Your task to perform on an android device: uninstall "Fetch Rewards" Image 0: 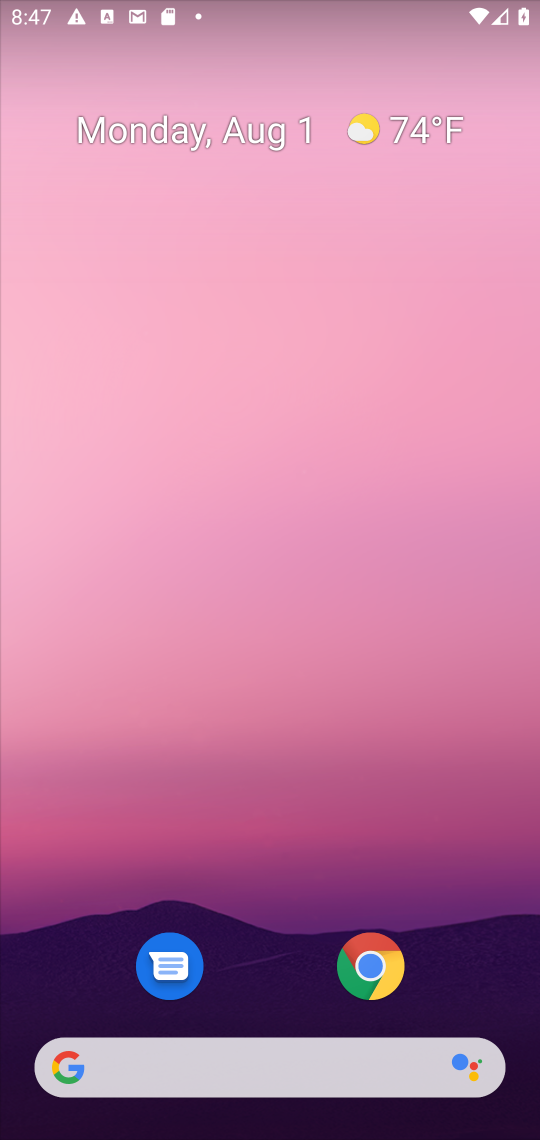
Step 0: drag from (523, 963) to (382, 58)
Your task to perform on an android device: uninstall "Fetch Rewards" Image 1: 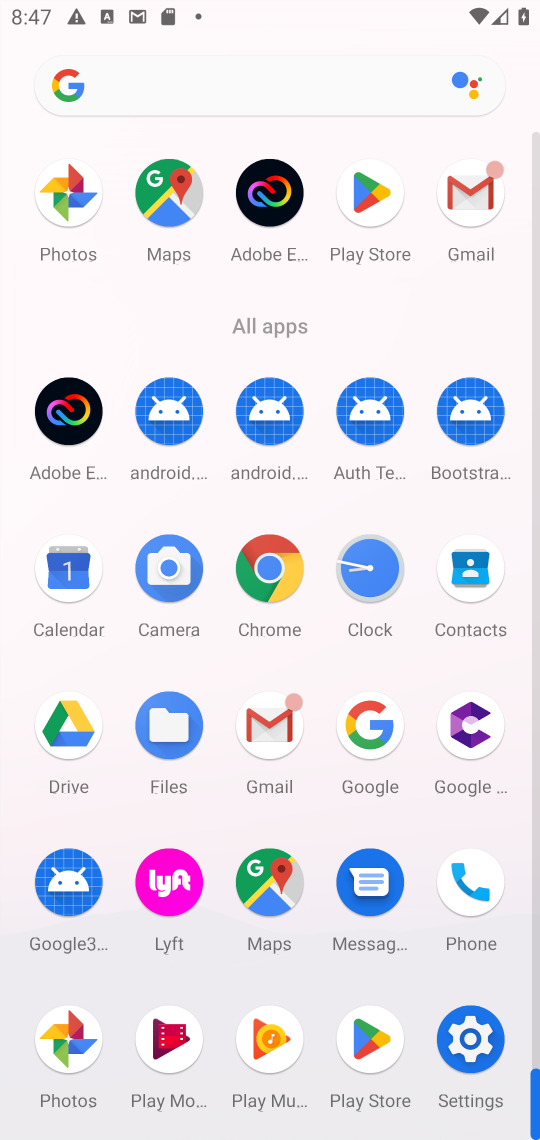
Step 1: click (380, 216)
Your task to perform on an android device: uninstall "Fetch Rewards" Image 2: 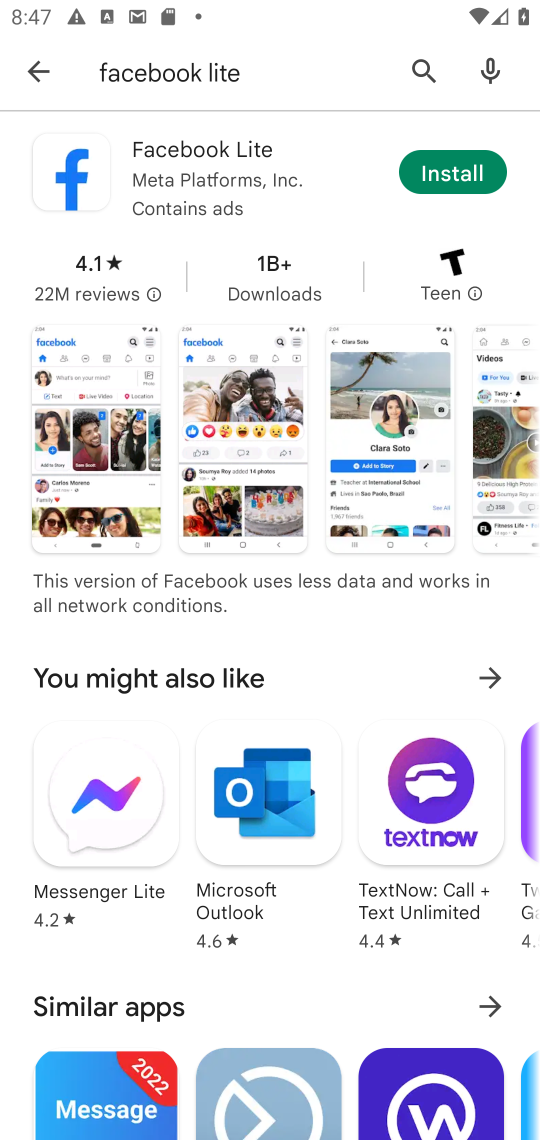
Step 2: click (416, 71)
Your task to perform on an android device: uninstall "Fetch Rewards" Image 3: 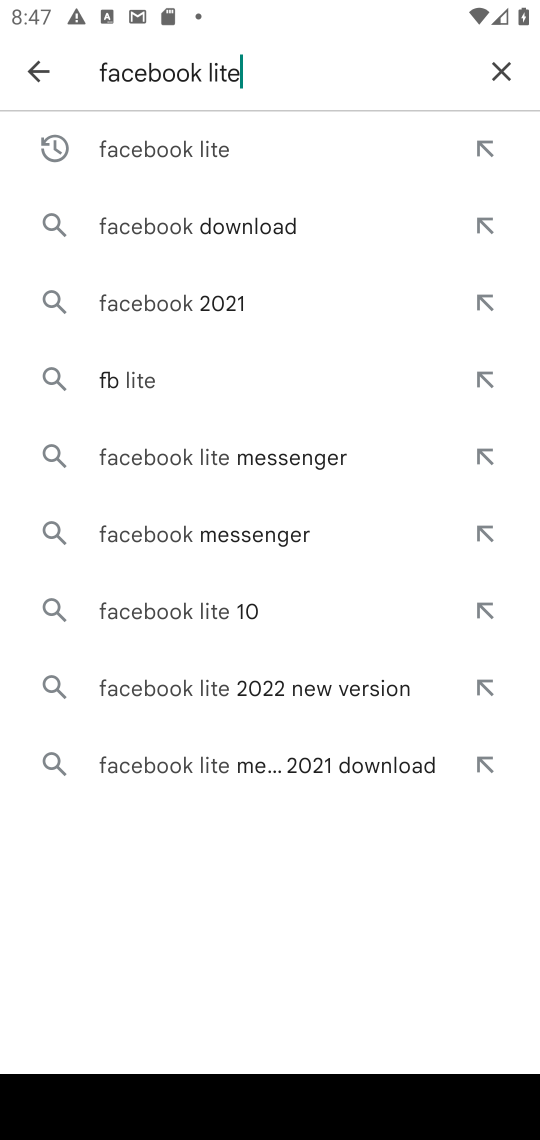
Step 3: click (502, 65)
Your task to perform on an android device: uninstall "Fetch Rewards" Image 4: 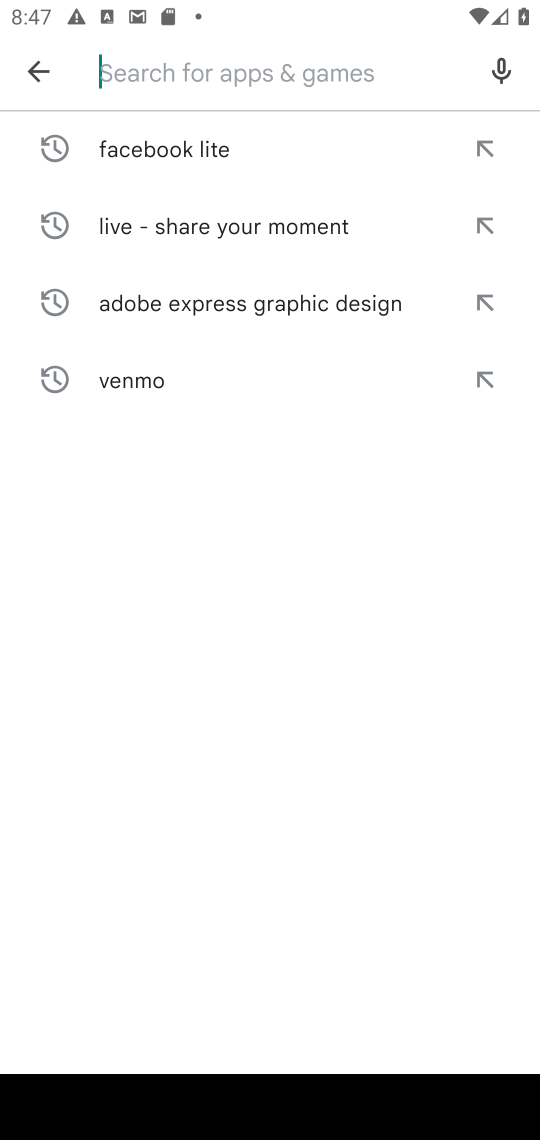
Step 4: type "Fetch Rewards"
Your task to perform on an android device: uninstall "Fetch Rewards" Image 5: 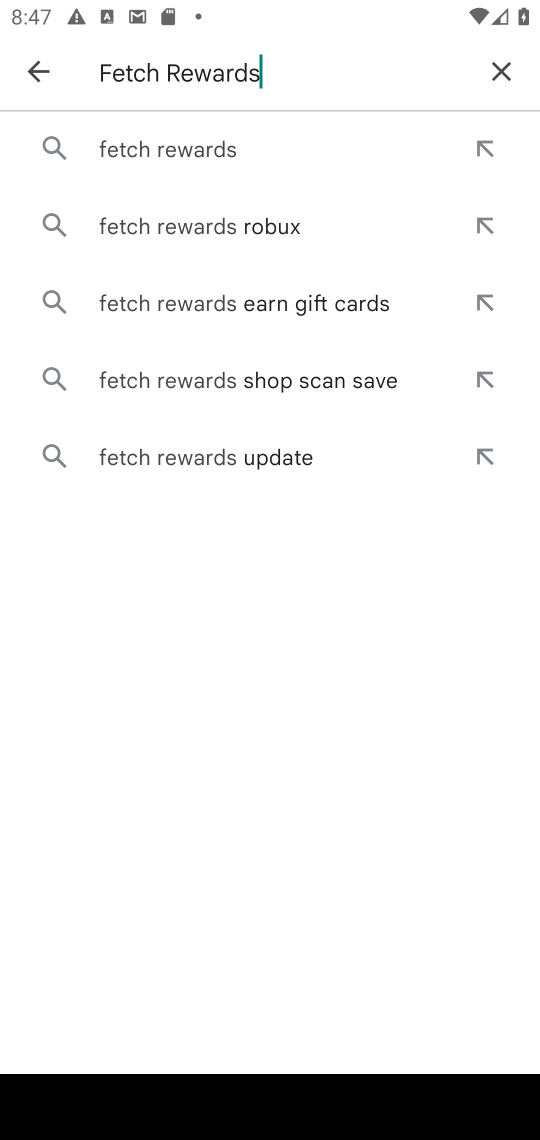
Step 5: click (162, 145)
Your task to perform on an android device: uninstall "Fetch Rewards" Image 6: 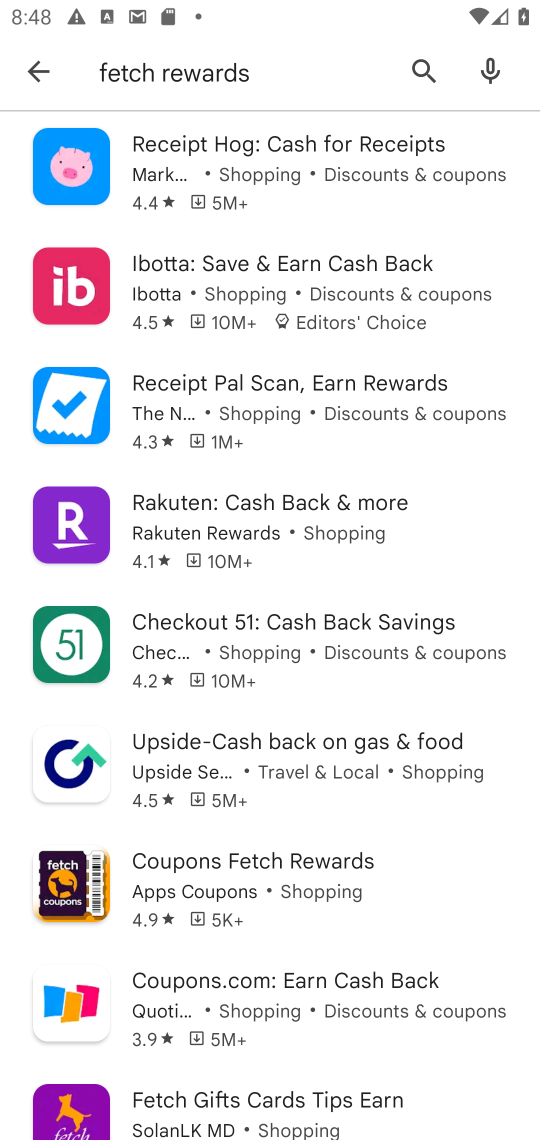
Step 6: task complete